Your task to perform on an android device: set the stopwatch Image 0: 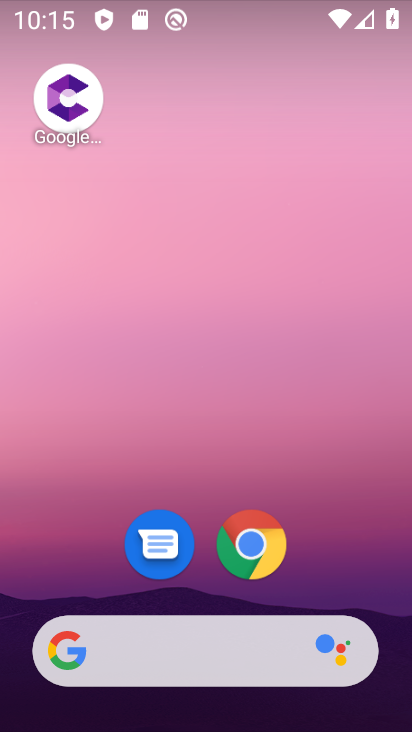
Step 0: drag from (268, 666) to (238, 16)
Your task to perform on an android device: set the stopwatch Image 1: 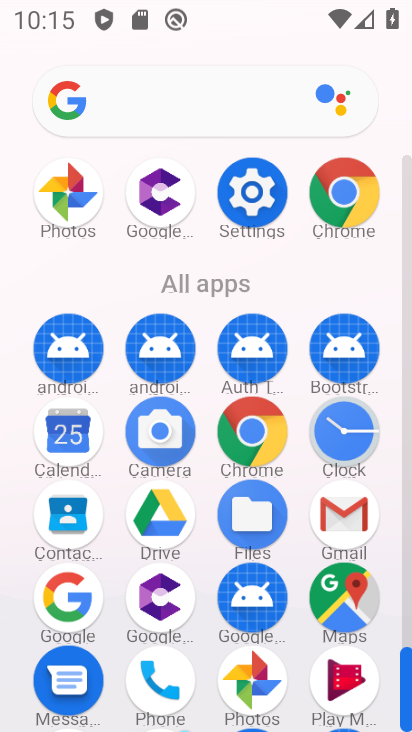
Step 1: click (354, 438)
Your task to perform on an android device: set the stopwatch Image 2: 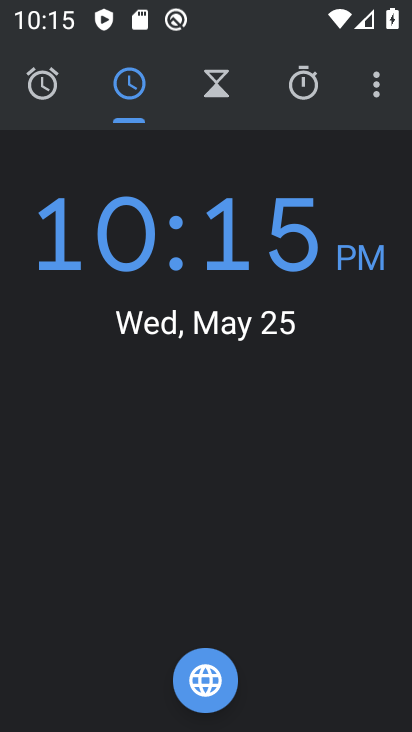
Step 2: click (321, 110)
Your task to perform on an android device: set the stopwatch Image 3: 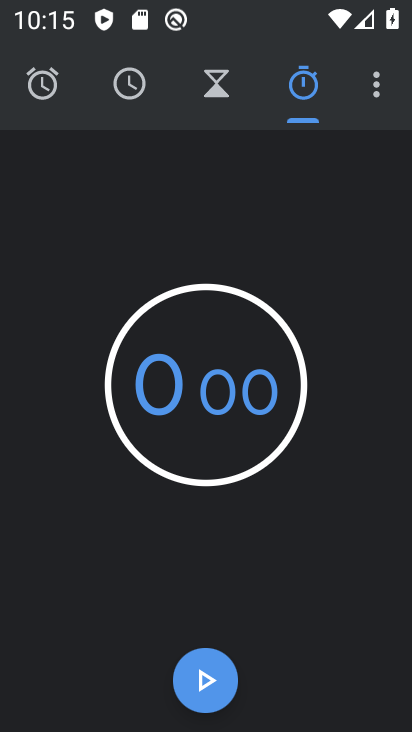
Step 3: click (202, 676)
Your task to perform on an android device: set the stopwatch Image 4: 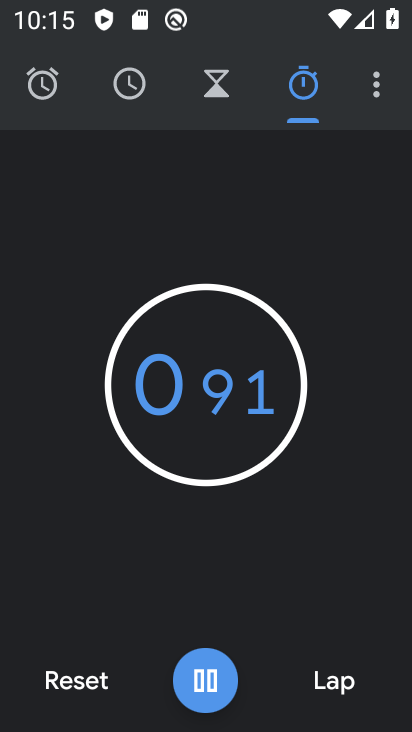
Step 4: task complete